Your task to perform on an android device: Open Google Chrome and open the bookmarks view Image 0: 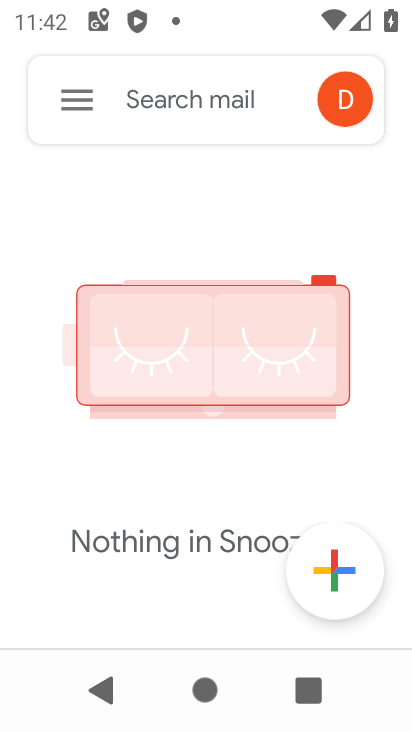
Step 0: press home button
Your task to perform on an android device: Open Google Chrome and open the bookmarks view Image 1: 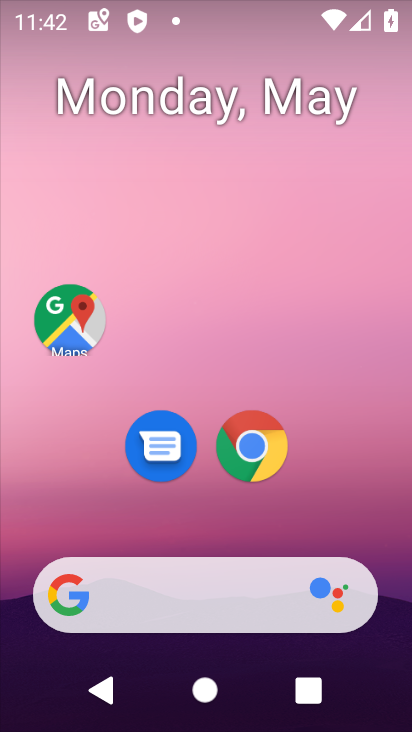
Step 1: drag from (318, 520) to (327, 231)
Your task to perform on an android device: Open Google Chrome and open the bookmarks view Image 2: 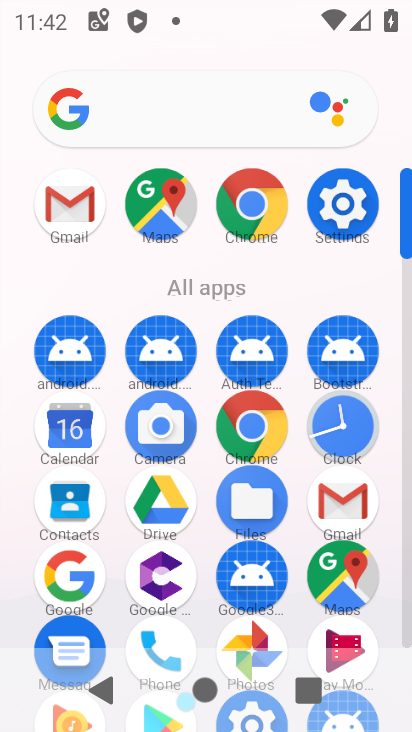
Step 2: click (249, 417)
Your task to perform on an android device: Open Google Chrome and open the bookmarks view Image 3: 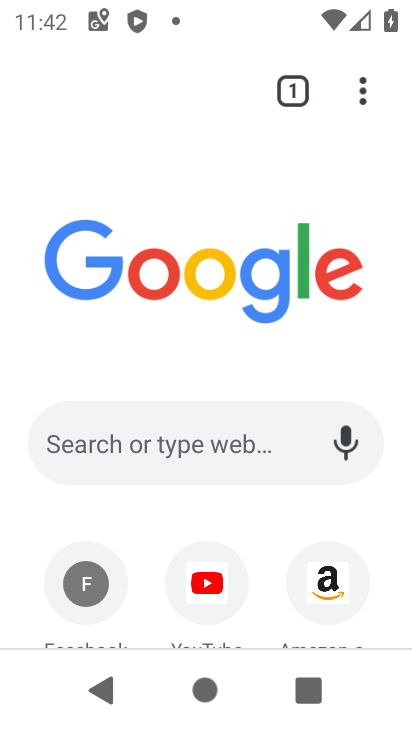
Step 3: click (356, 89)
Your task to perform on an android device: Open Google Chrome and open the bookmarks view Image 4: 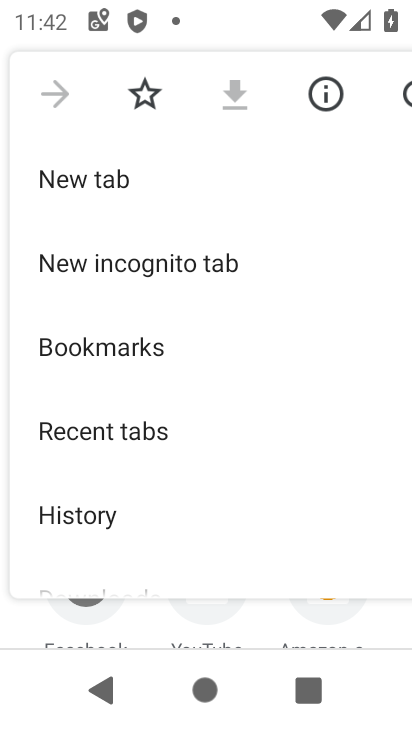
Step 4: click (137, 345)
Your task to perform on an android device: Open Google Chrome and open the bookmarks view Image 5: 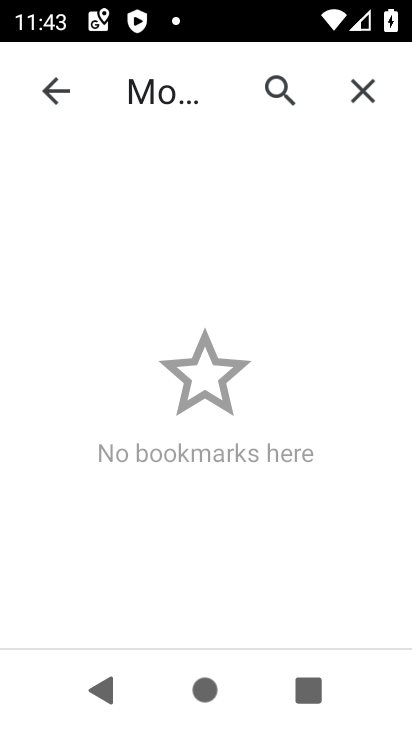
Step 5: task complete